Your task to perform on an android device: Open Google Chrome and open the bookmarks view Image 0: 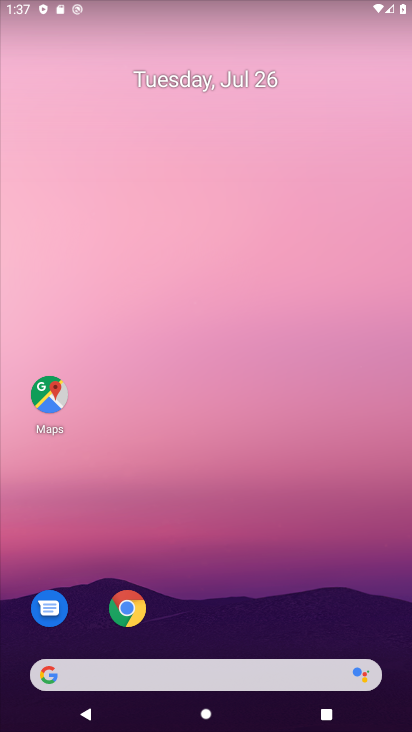
Step 0: press home button
Your task to perform on an android device: Open Google Chrome and open the bookmarks view Image 1: 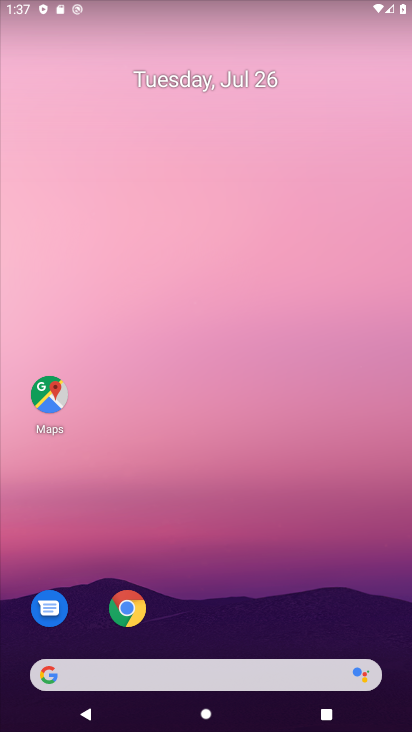
Step 1: drag from (222, 645) to (285, 33)
Your task to perform on an android device: Open Google Chrome and open the bookmarks view Image 2: 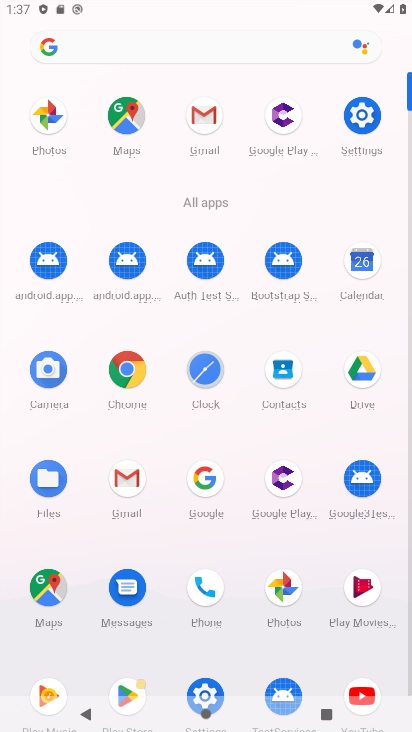
Step 2: click (123, 375)
Your task to perform on an android device: Open Google Chrome and open the bookmarks view Image 3: 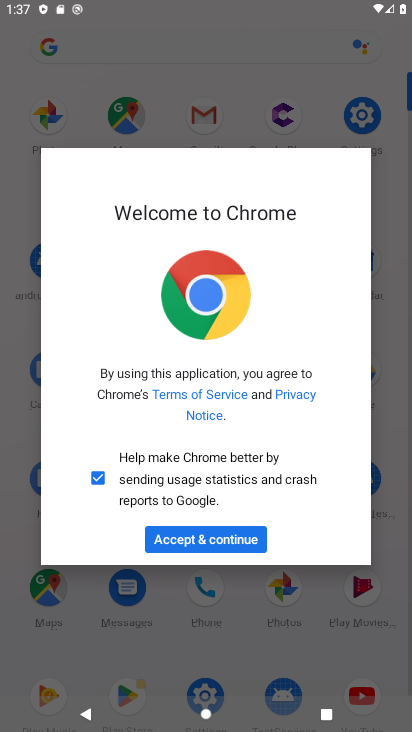
Step 3: click (189, 550)
Your task to perform on an android device: Open Google Chrome and open the bookmarks view Image 4: 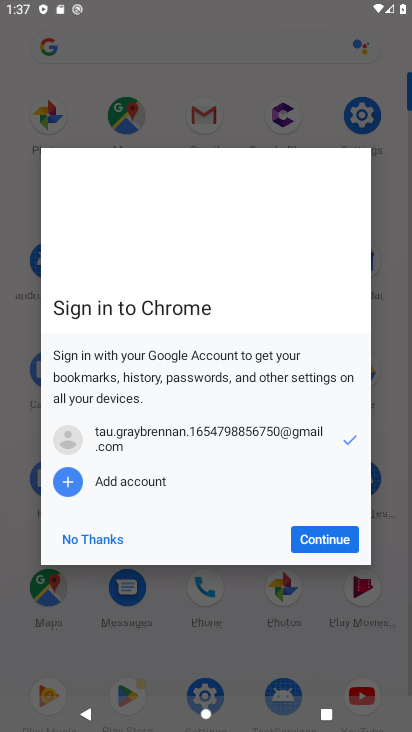
Step 4: click (328, 545)
Your task to perform on an android device: Open Google Chrome and open the bookmarks view Image 5: 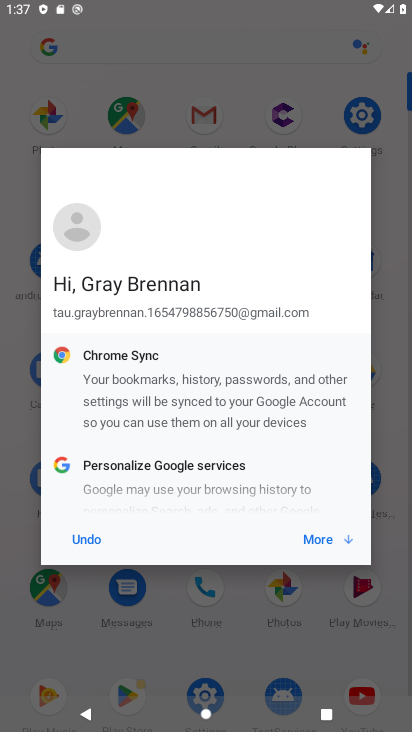
Step 5: click (328, 545)
Your task to perform on an android device: Open Google Chrome and open the bookmarks view Image 6: 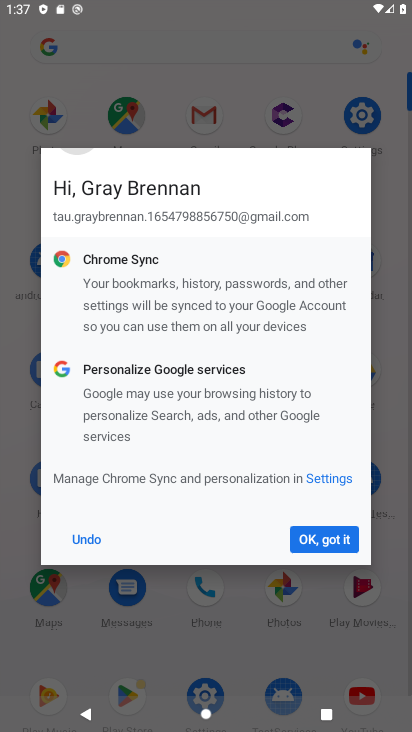
Step 6: click (328, 545)
Your task to perform on an android device: Open Google Chrome and open the bookmarks view Image 7: 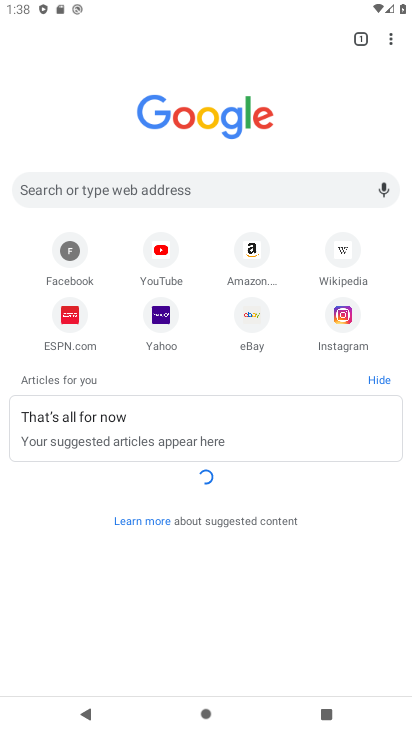
Step 7: task complete